Your task to perform on an android device: Go to display settings Image 0: 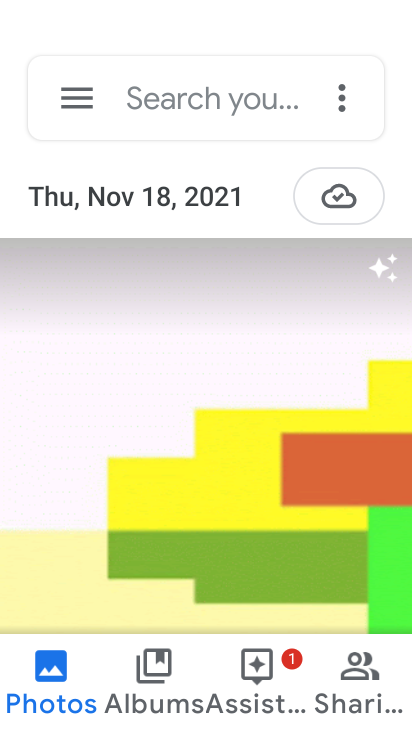
Step 0: press home button
Your task to perform on an android device: Go to display settings Image 1: 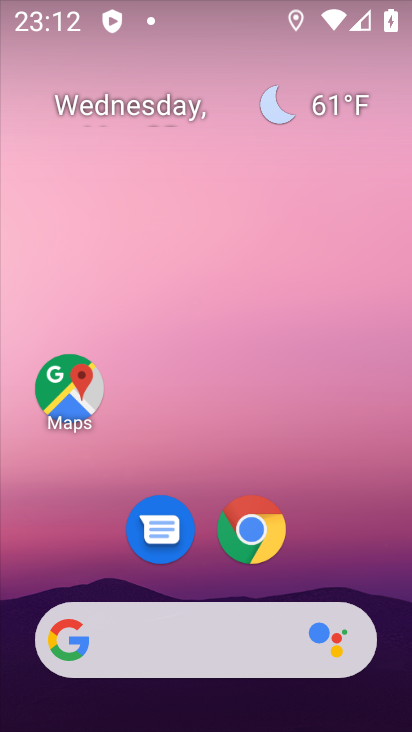
Step 1: drag from (372, 588) to (385, 168)
Your task to perform on an android device: Go to display settings Image 2: 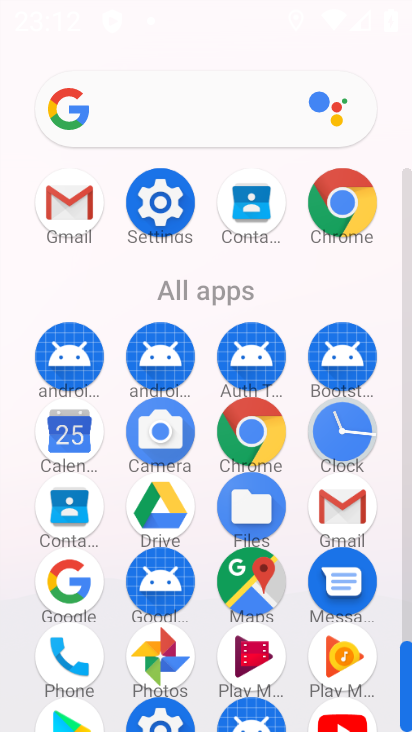
Step 2: click (163, 215)
Your task to perform on an android device: Go to display settings Image 3: 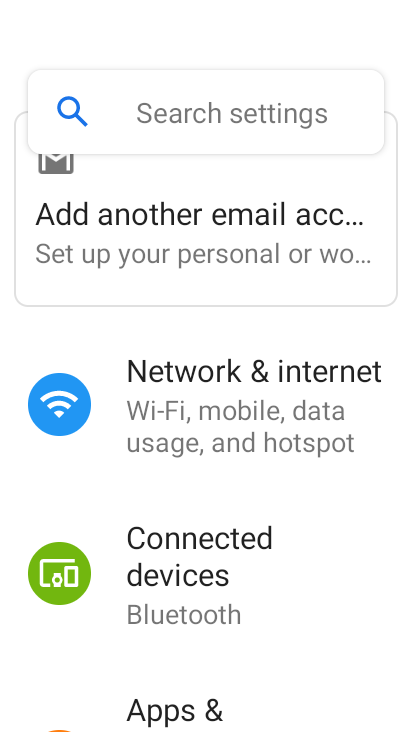
Step 3: drag from (376, 590) to (378, 503)
Your task to perform on an android device: Go to display settings Image 4: 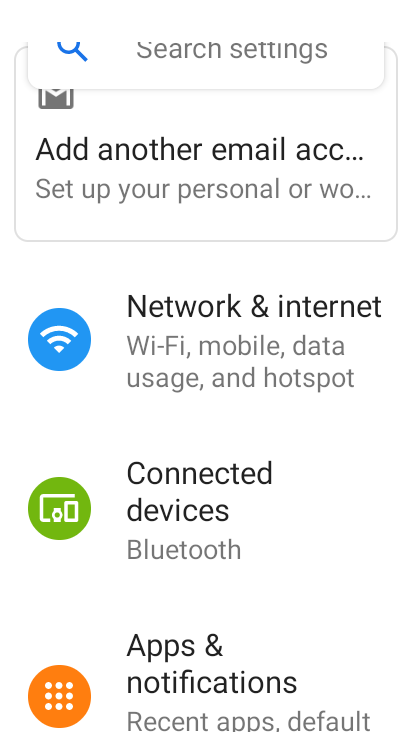
Step 4: drag from (386, 631) to (370, 538)
Your task to perform on an android device: Go to display settings Image 5: 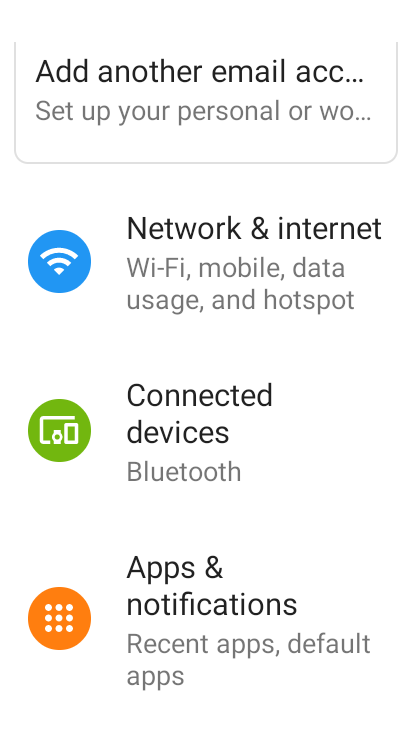
Step 5: drag from (372, 614) to (377, 487)
Your task to perform on an android device: Go to display settings Image 6: 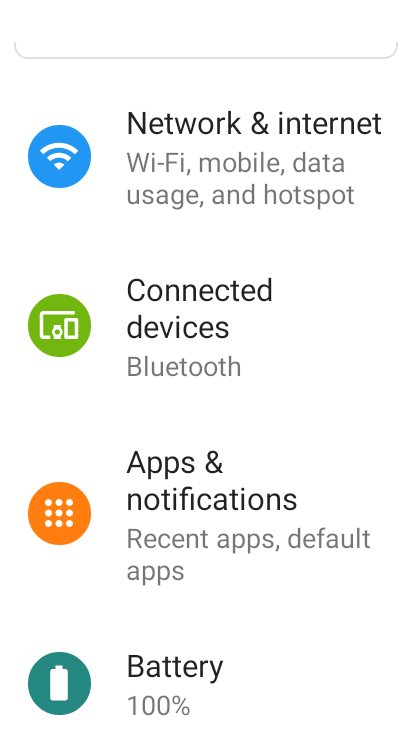
Step 6: drag from (373, 577) to (391, 463)
Your task to perform on an android device: Go to display settings Image 7: 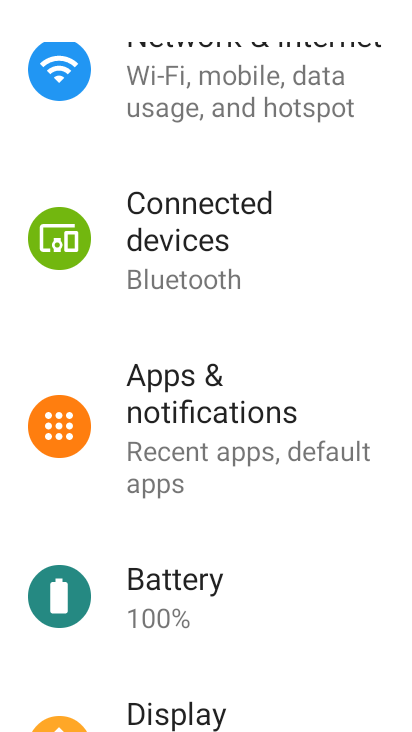
Step 7: drag from (373, 568) to (353, 459)
Your task to perform on an android device: Go to display settings Image 8: 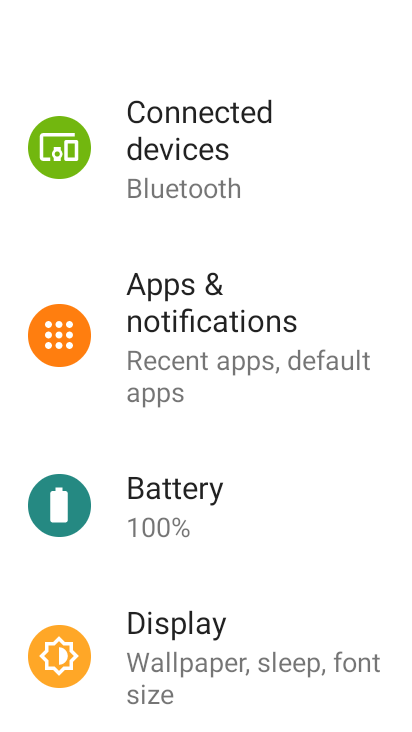
Step 8: drag from (348, 456) to (355, 361)
Your task to perform on an android device: Go to display settings Image 9: 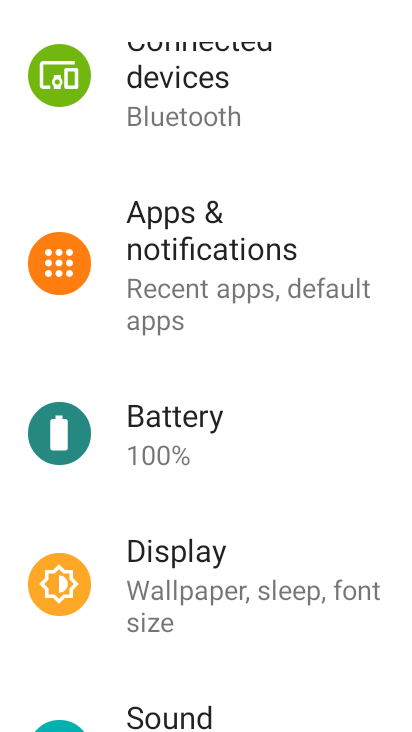
Step 9: drag from (357, 435) to (371, 319)
Your task to perform on an android device: Go to display settings Image 10: 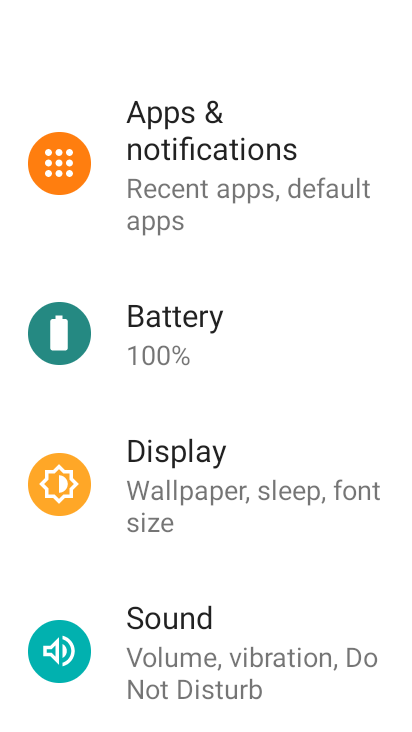
Step 10: drag from (361, 400) to (363, 300)
Your task to perform on an android device: Go to display settings Image 11: 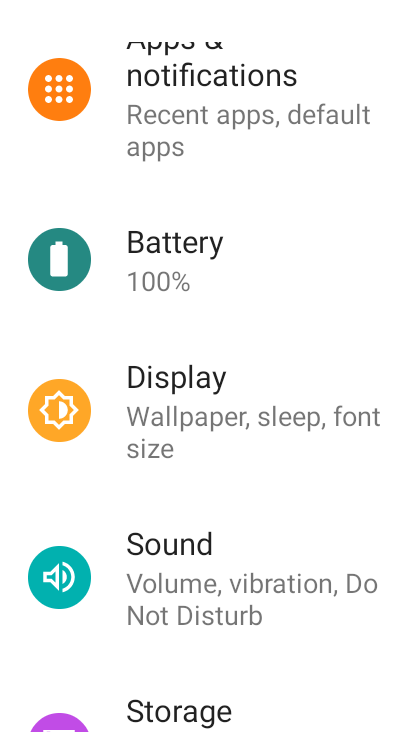
Step 11: drag from (333, 451) to (343, 301)
Your task to perform on an android device: Go to display settings Image 12: 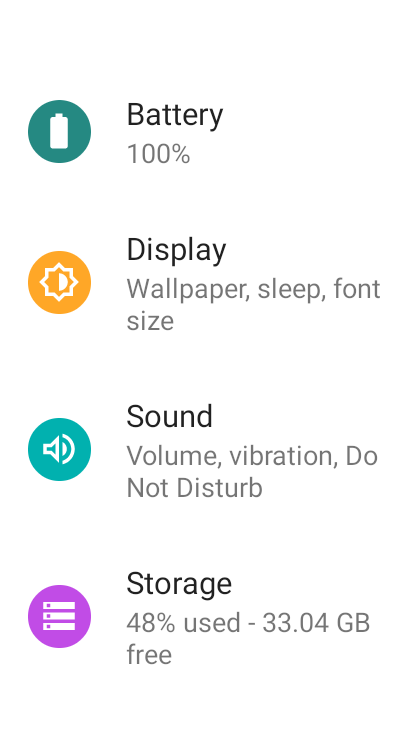
Step 12: click (293, 282)
Your task to perform on an android device: Go to display settings Image 13: 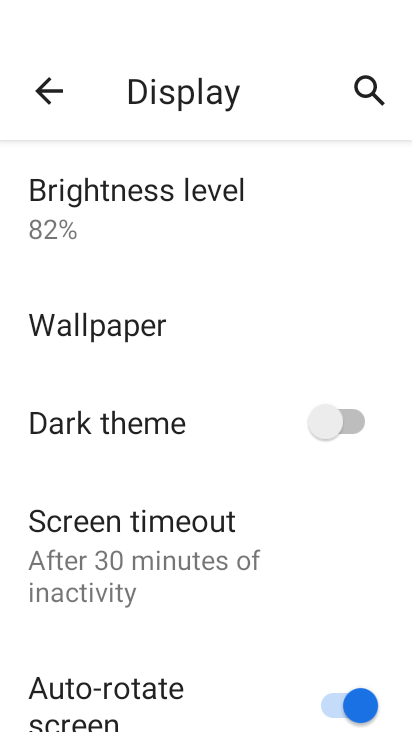
Step 13: drag from (274, 446) to (270, 301)
Your task to perform on an android device: Go to display settings Image 14: 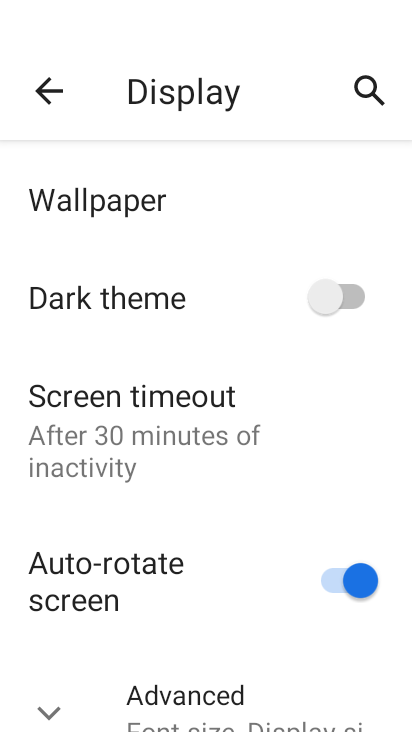
Step 14: drag from (266, 473) to (280, 339)
Your task to perform on an android device: Go to display settings Image 15: 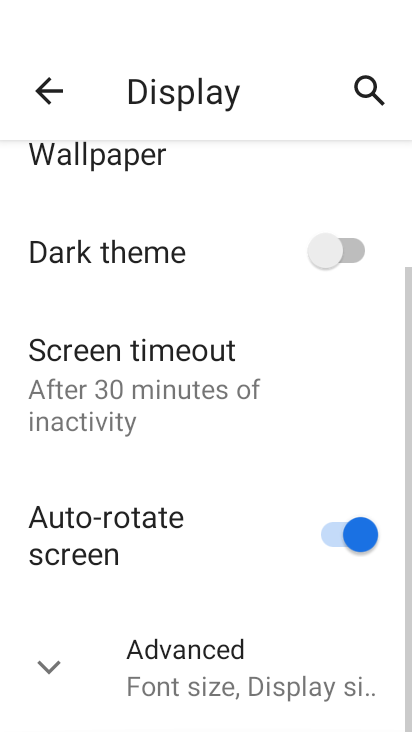
Step 15: click (209, 663)
Your task to perform on an android device: Go to display settings Image 16: 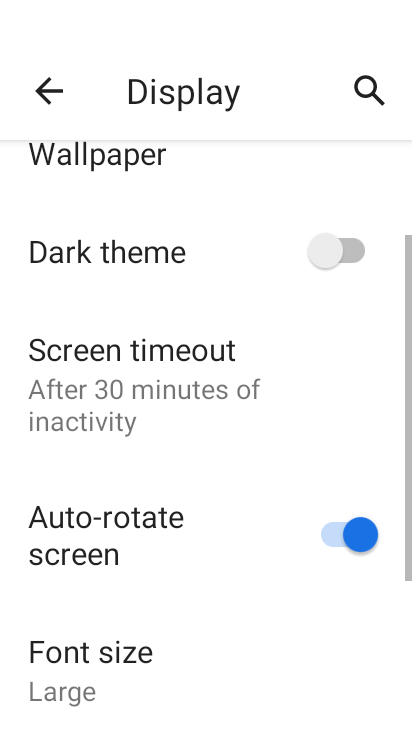
Step 16: task complete